Your task to perform on an android device: Check the news Image 0: 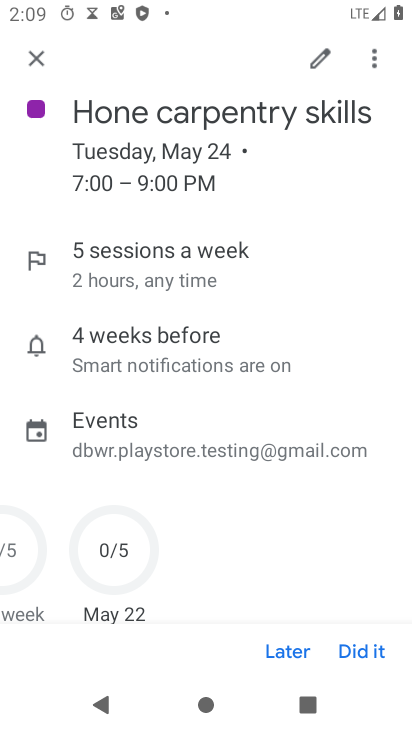
Step 0: press home button
Your task to perform on an android device: Check the news Image 1: 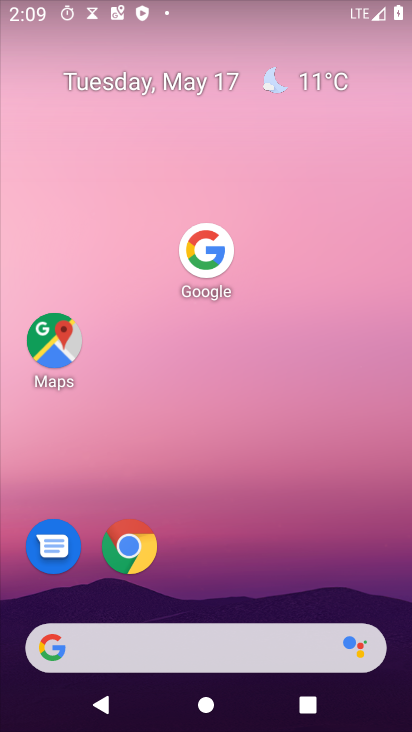
Step 1: click (58, 646)
Your task to perform on an android device: Check the news Image 2: 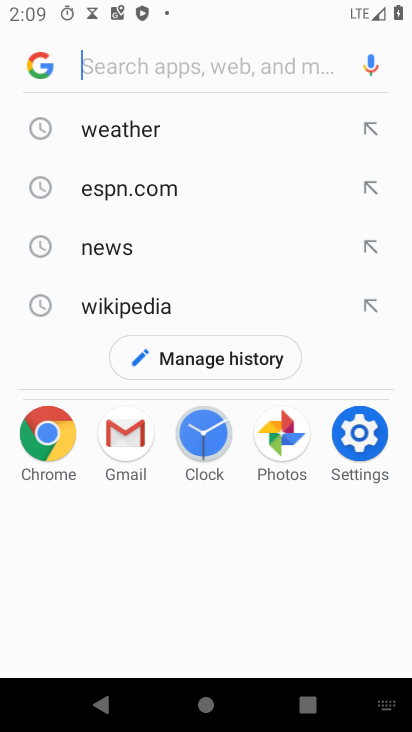
Step 2: click (125, 250)
Your task to perform on an android device: Check the news Image 3: 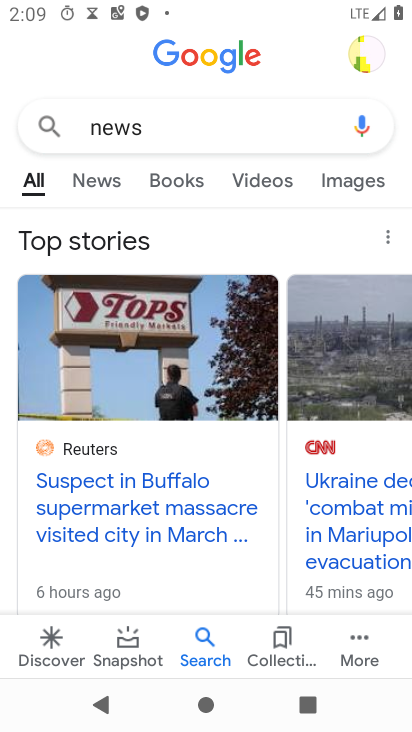
Step 3: click (86, 181)
Your task to perform on an android device: Check the news Image 4: 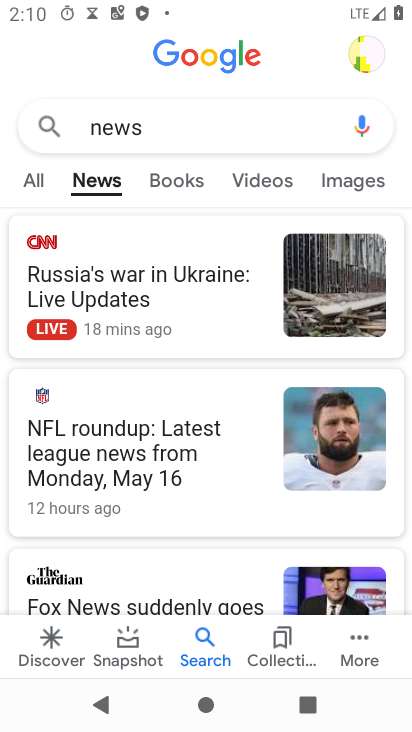
Step 4: task complete